Your task to perform on an android device: Search for Mexican restaurants on Maps Image 0: 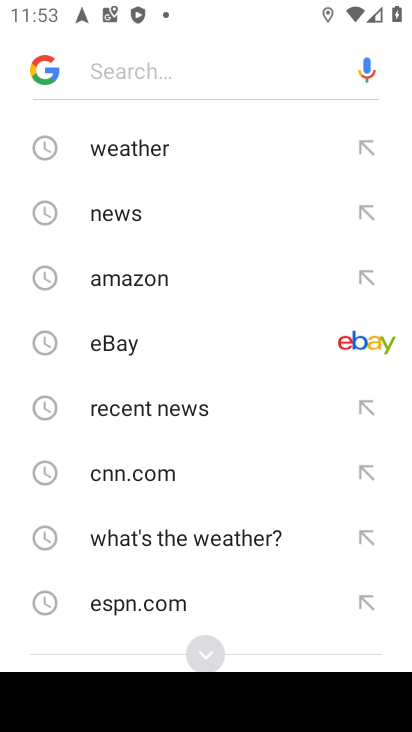
Step 0: press home button
Your task to perform on an android device: Search for Mexican restaurants on Maps Image 1: 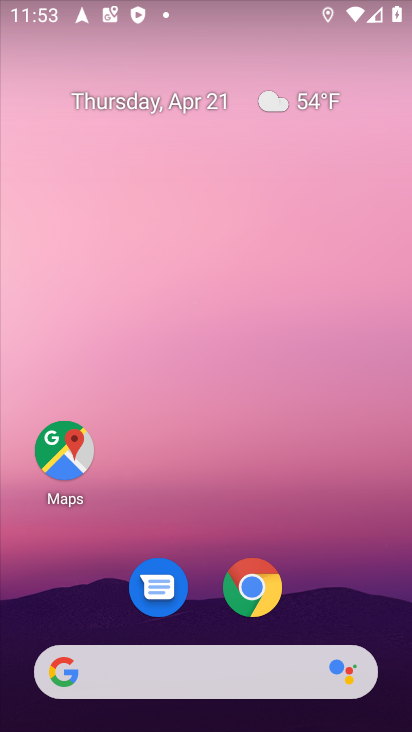
Step 1: click (61, 448)
Your task to perform on an android device: Search for Mexican restaurants on Maps Image 2: 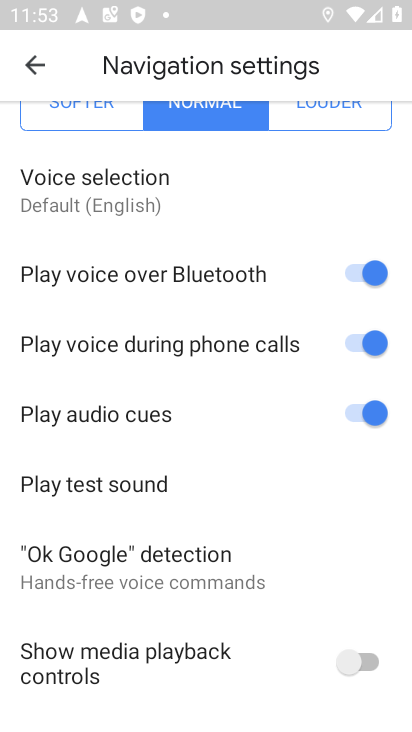
Step 2: click (38, 71)
Your task to perform on an android device: Search for Mexican restaurants on Maps Image 3: 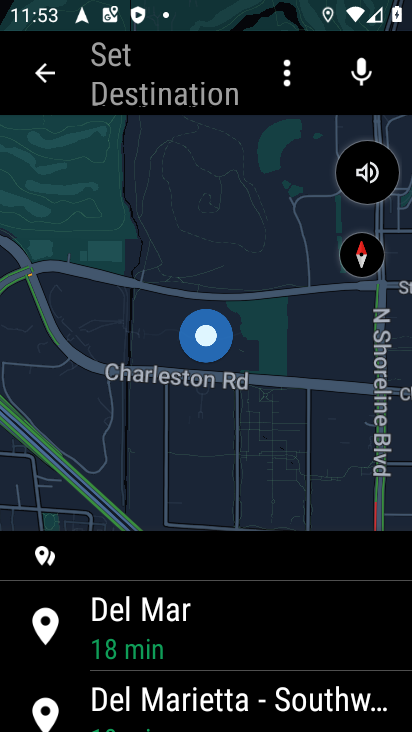
Step 3: click (38, 71)
Your task to perform on an android device: Search for Mexican restaurants on Maps Image 4: 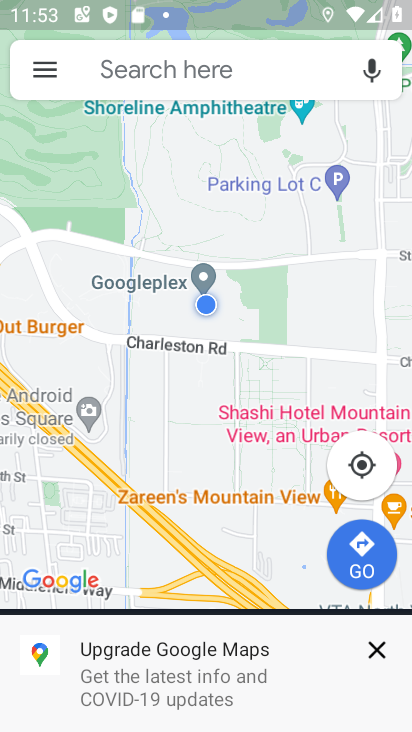
Step 4: click (139, 63)
Your task to perform on an android device: Search for Mexican restaurants on Maps Image 5: 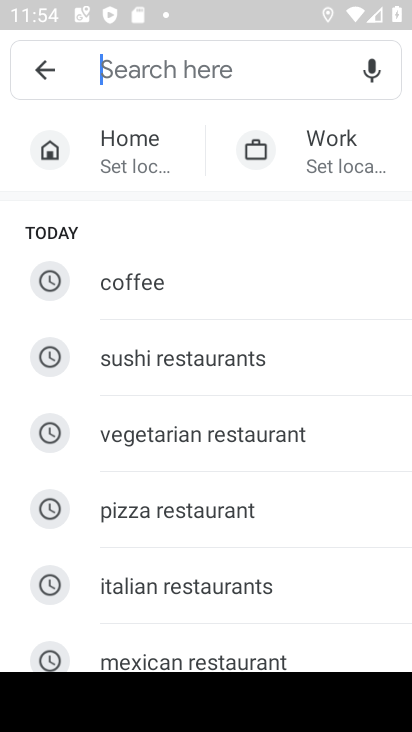
Step 5: type "mexican restaurant"
Your task to perform on an android device: Search for Mexican restaurants on Maps Image 6: 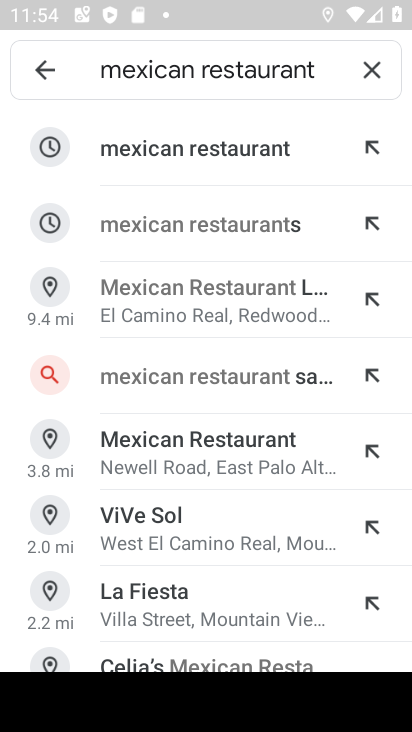
Step 6: click (165, 155)
Your task to perform on an android device: Search for Mexican restaurants on Maps Image 7: 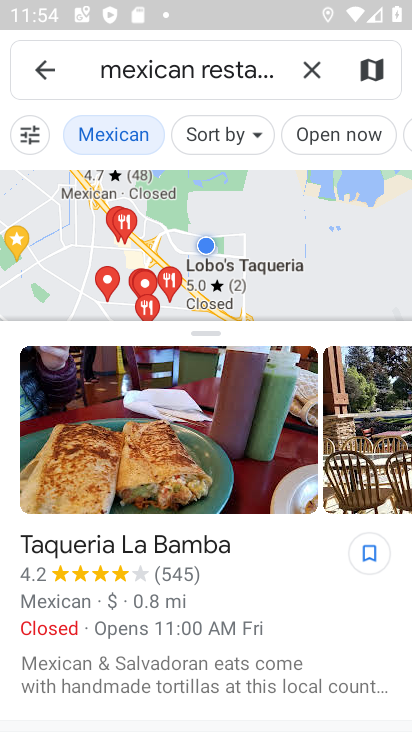
Step 7: task complete